Your task to perform on an android device: move an email to a new category in the gmail app Image 0: 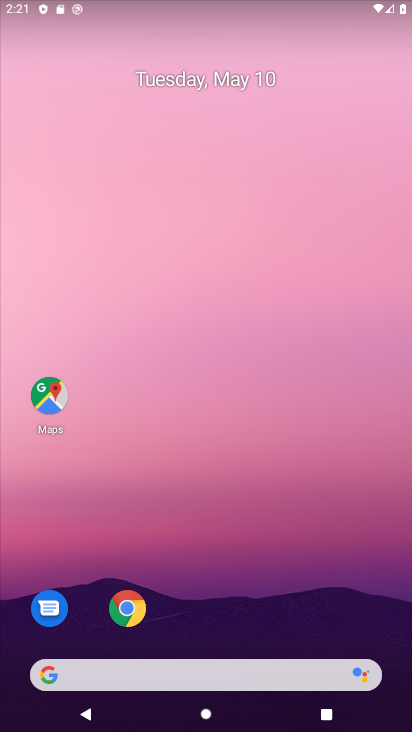
Step 0: drag from (402, 676) to (327, 252)
Your task to perform on an android device: move an email to a new category in the gmail app Image 1: 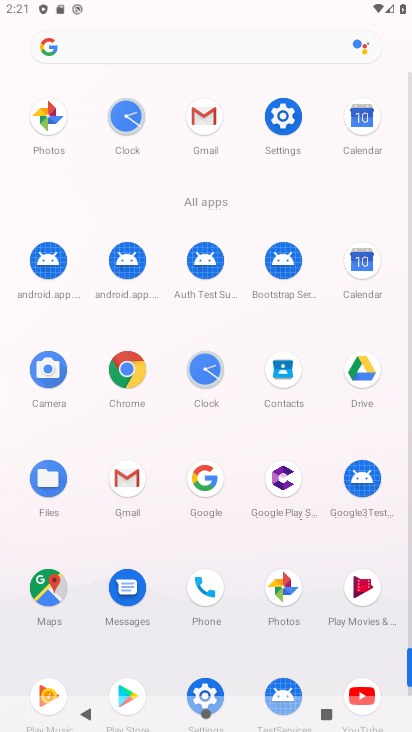
Step 1: click (125, 477)
Your task to perform on an android device: move an email to a new category in the gmail app Image 2: 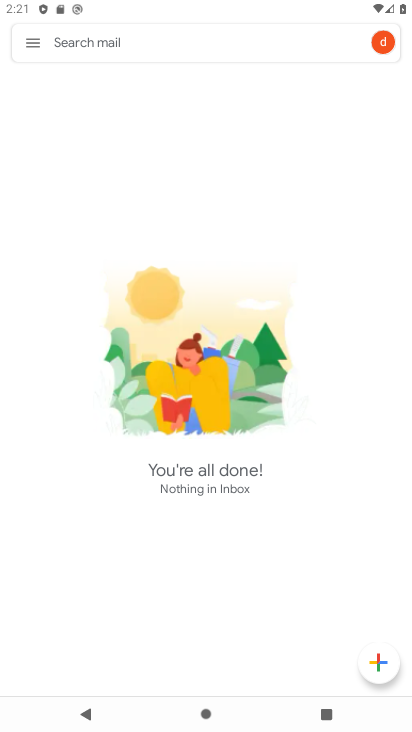
Step 2: click (32, 41)
Your task to perform on an android device: move an email to a new category in the gmail app Image 3: 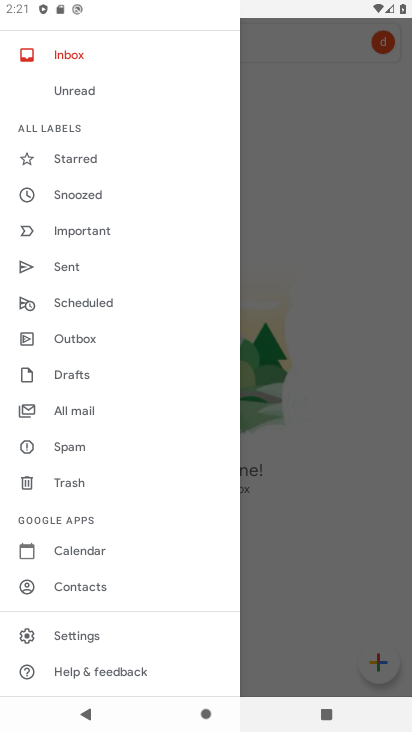
Step 3: click (79, 409)
Your task to perform on an android device: move an email to a new category in the gmail app Image 4: 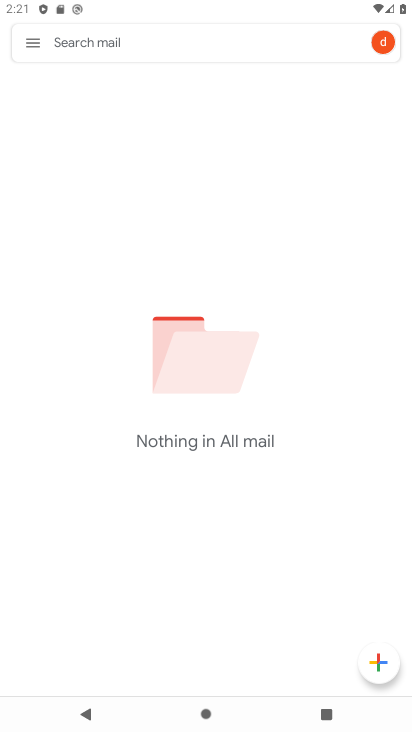
Step 4: task complete